Your task to perform on an android device: Open calendar and show me the third week of next month Image 0: 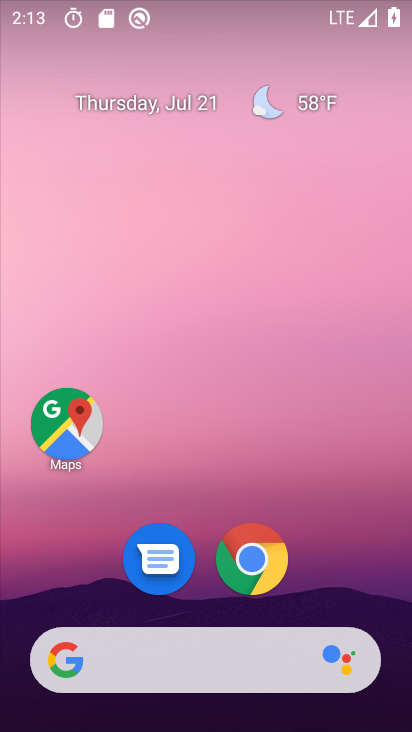
Step 0: drag from (358, 585) to (366, 87)
Your task to perform on an android device: Open calendar and show me the third week of next month Image 1: 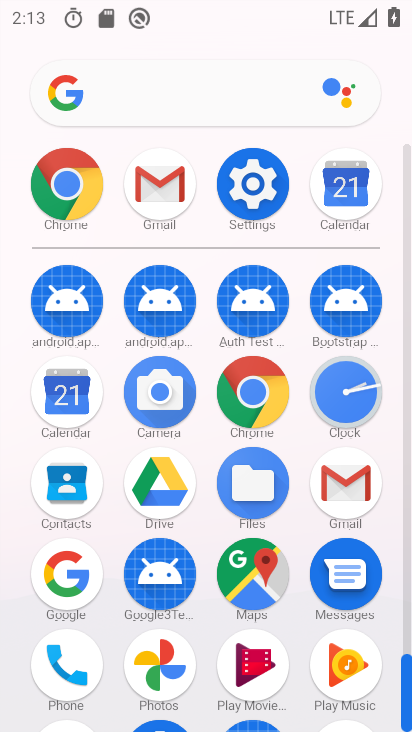
Step 1: click (73, 390)
Your task to perform on an android device: Open calendar and show me the third week of next month Image 2: 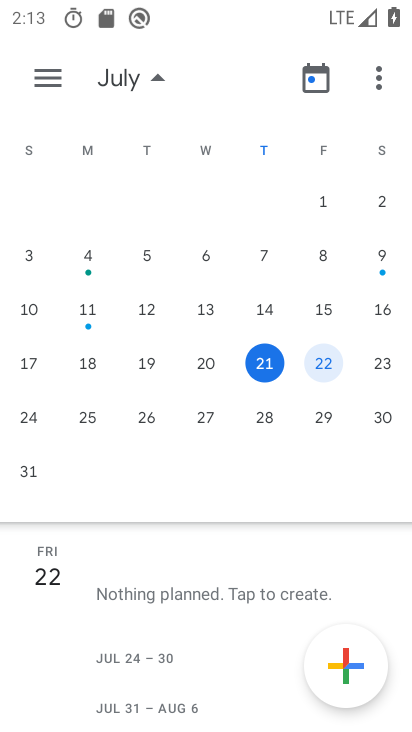
Step 2: drag from (385, 222) to (69, 207)
Your task to perform on an android device: Open calendar and show me the third week of next month Image 3: 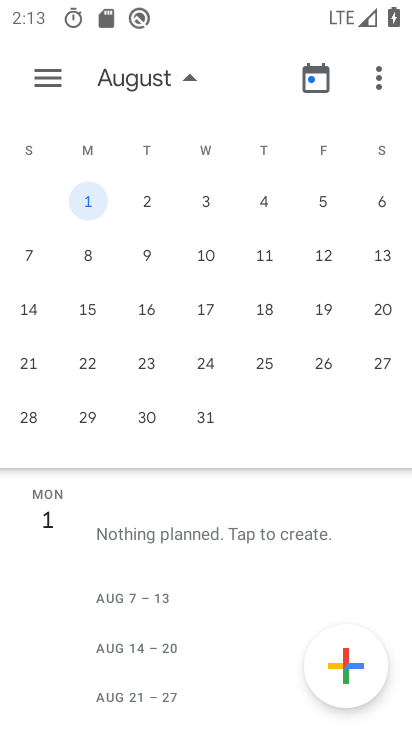
Step 3: click (90, 312)
Your task to perform on an android device: Open calendar and show me the third week of next month Image 4: 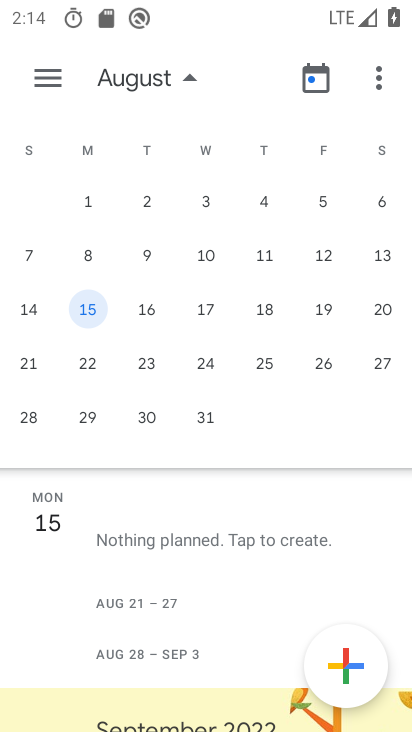
Step 4: task complete